Your task to perform on an android device: open device folders in google photos Image 0: 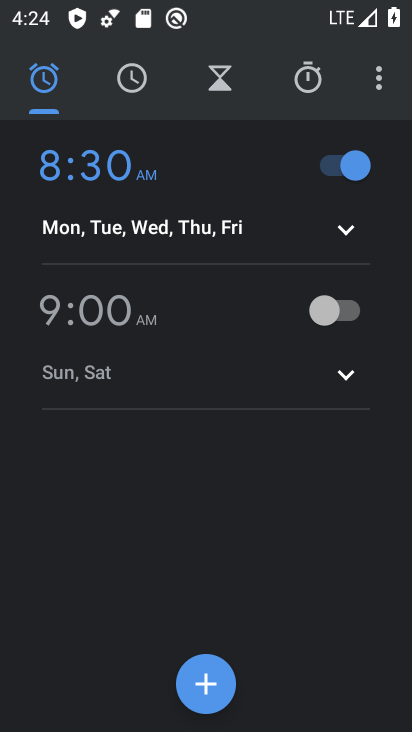
Step 0: press home button
Your task to perform on an android device: open device folders in google photos Image 1: 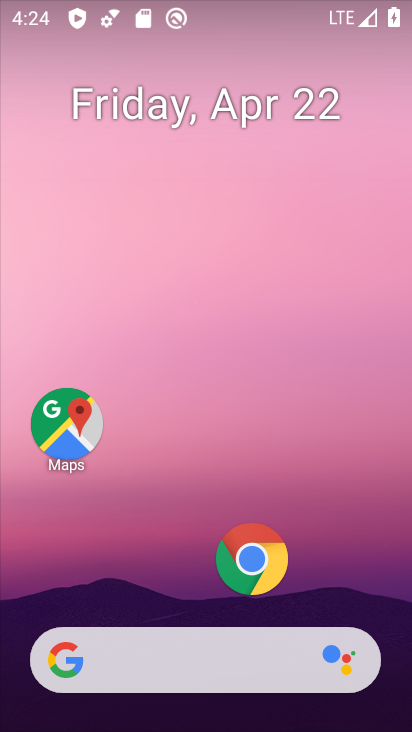
Step 1: drag from (140, 572) to (313, 22)
Your task to perform on an android device: open device folders in google photos Image 2: 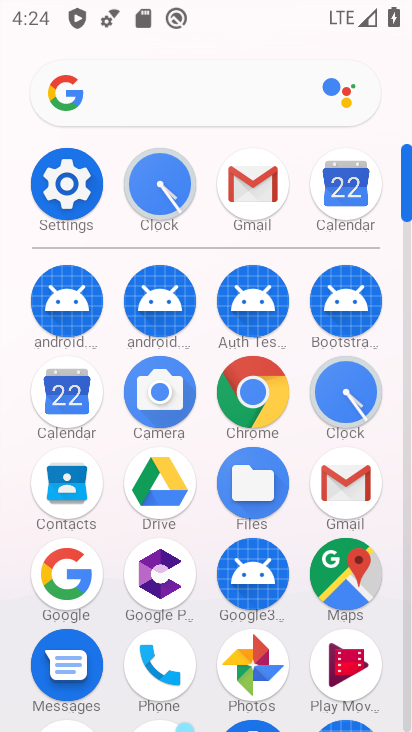
Step 2: drag from (207, 526) to (306, 2)
Your task to perform on an android device: open device folders in google photos Image 3: 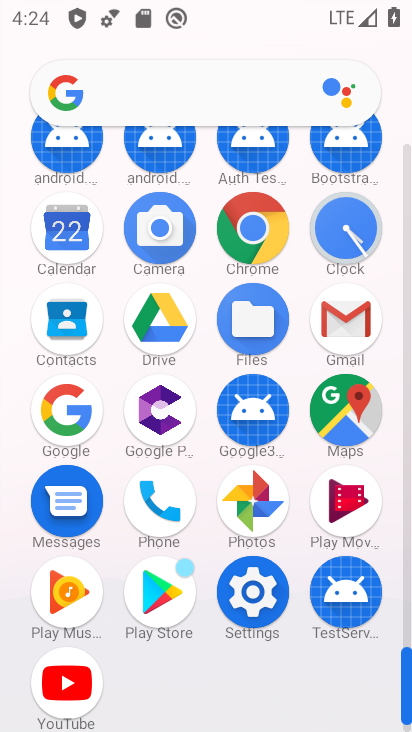
Step 3: click (241, 502)
Your task to perform on an android device: open device folders in google photos Image 4: 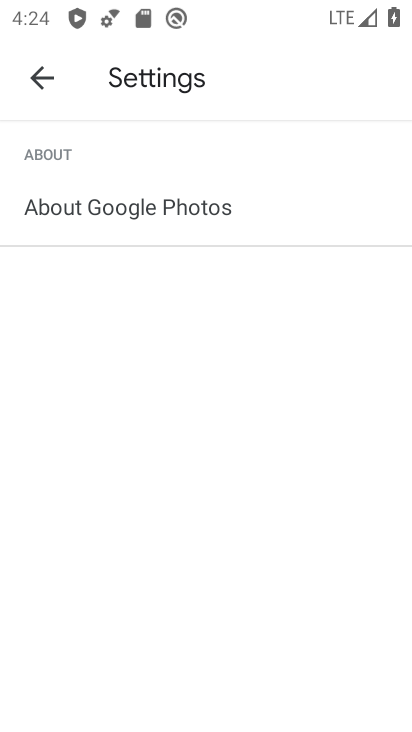
Step 4: click (44, 69)
Your task to perform on an android device: open device folders in google photos Image 5: 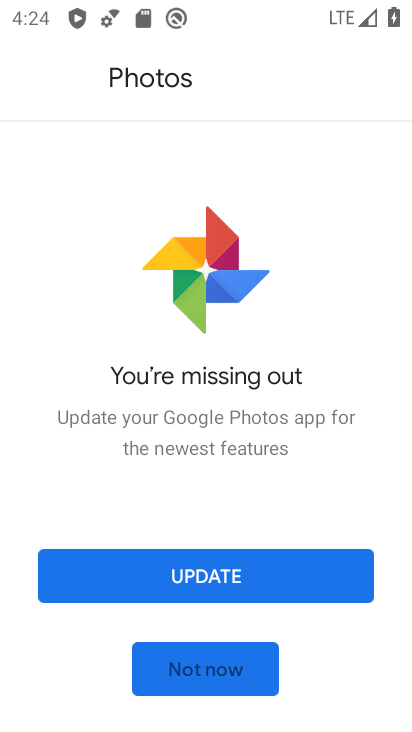
Step 5: click (200, 683)
Your task to perform on an android device: open device folders in google photos Image 6: 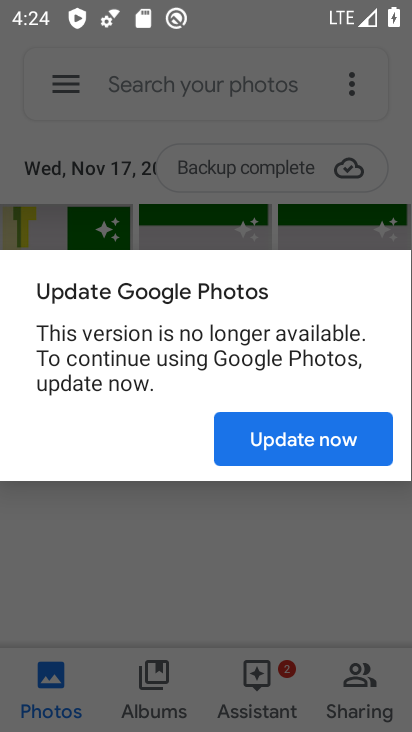
Step 6: click (263, 449)
Your task to perform on an android device: open device folders in google photos Image 7: 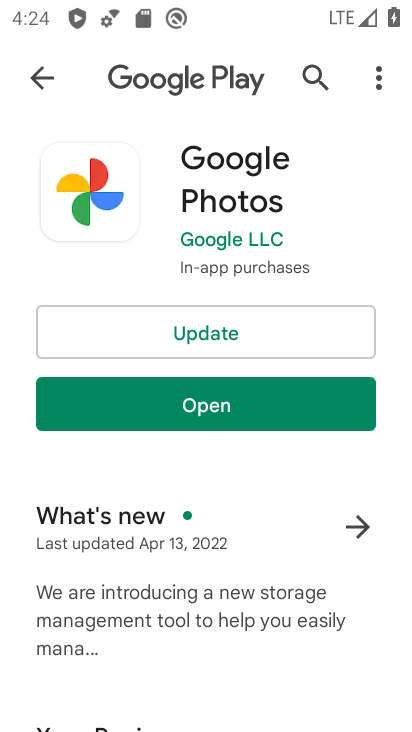
Step 7: click (213, 404)
Your task to perform on an android device: open device folders in google photos Image 8: 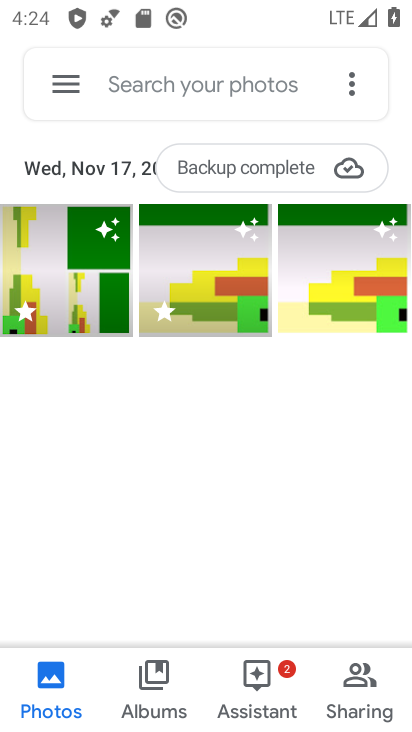
Step 8: click (55, 77)
Your task to perform on an android device: open device folders in google photos Image 9: 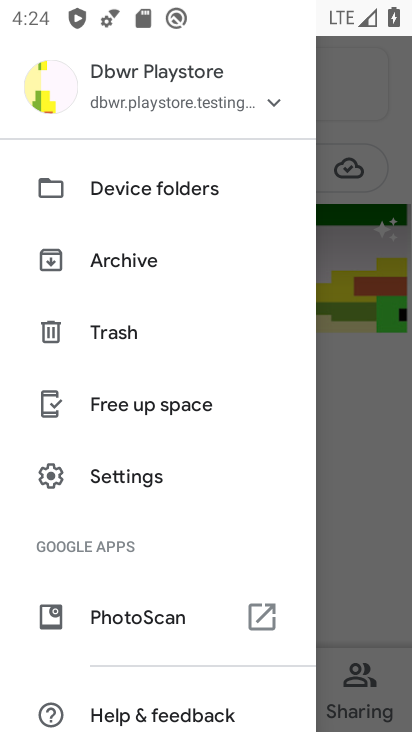
Step 9: click (162, 194)
Your task to perform on an android device: open device folders in google photos Image 10: 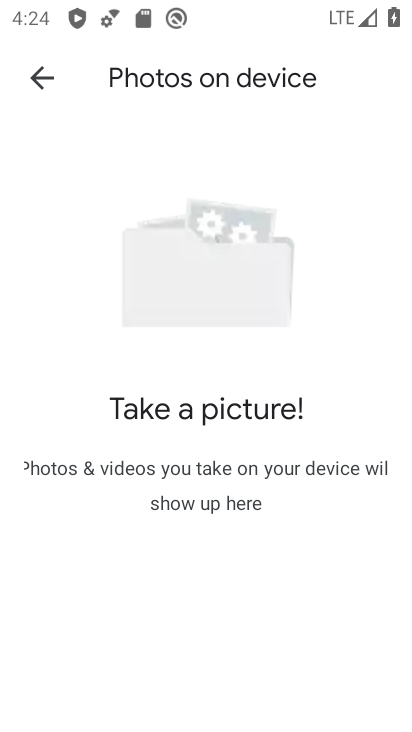
Step 10: task complete